Your task to perform on an android device: Go to network settings Image 0: 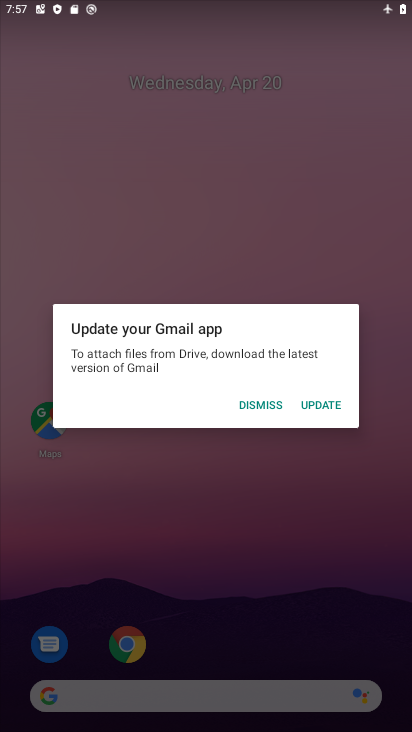
Step 0: press home button
Your task to perform on an android device: Go to network settings Image 1: 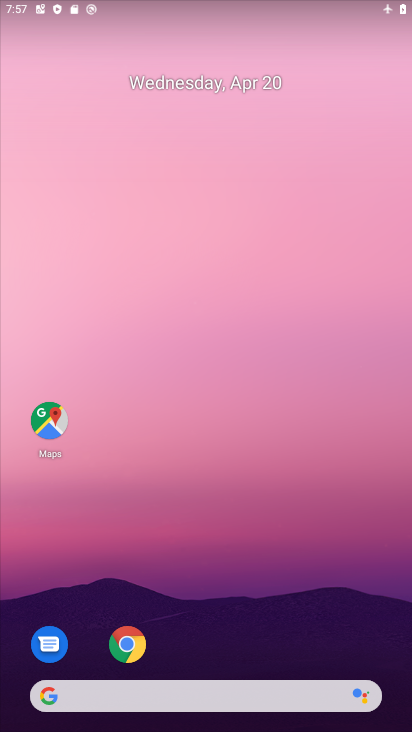
Step 1: drag from (327, 620) to (186, 53)
Your task to perform on an android device: Go to network settings Image 2: 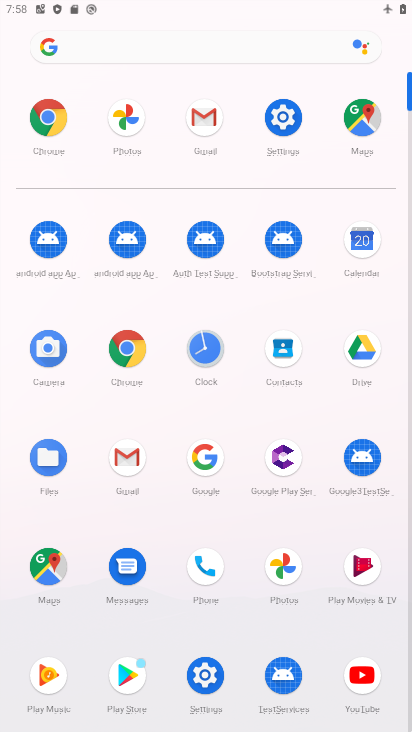
Step 2: click (279, 119)
Your task to perform on an android device: Go to network settings Image 3: 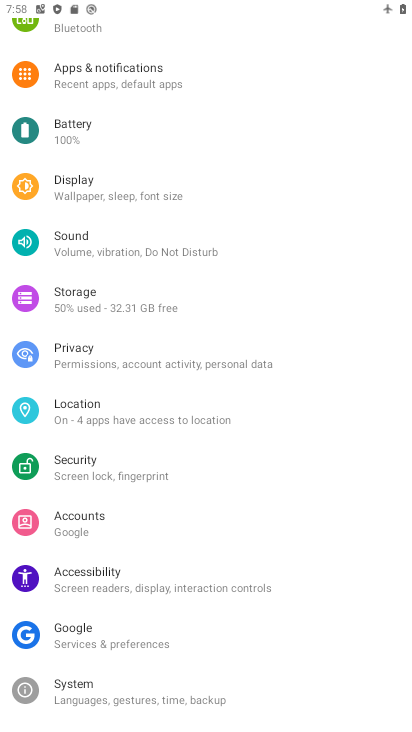
Step 3: drag from (167, 100) to (208, 549)
Your task to perform on an android device: Go to network settings Image 4: 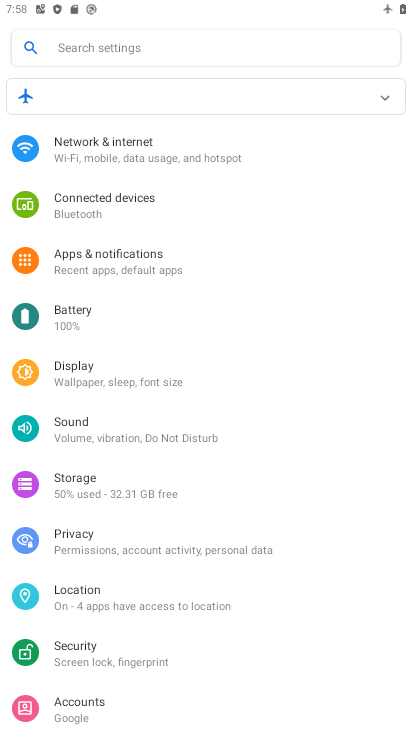
Step 4: click (184, 168)
Your task to perform on an android device: Go to network settings Image 5: 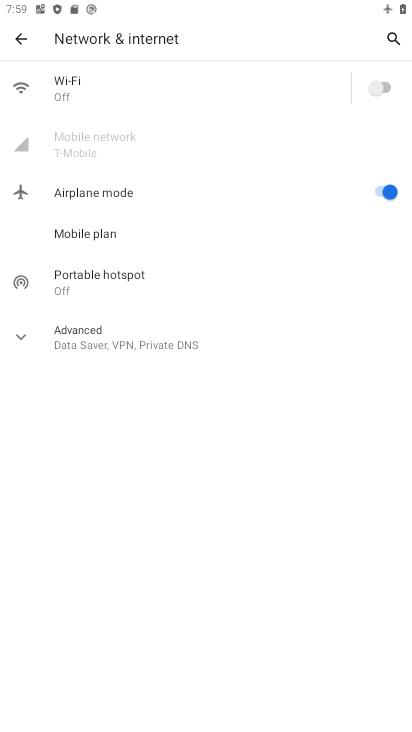
Step 5: task complete